Your task to perform on an android device: Go to settings Image 0: 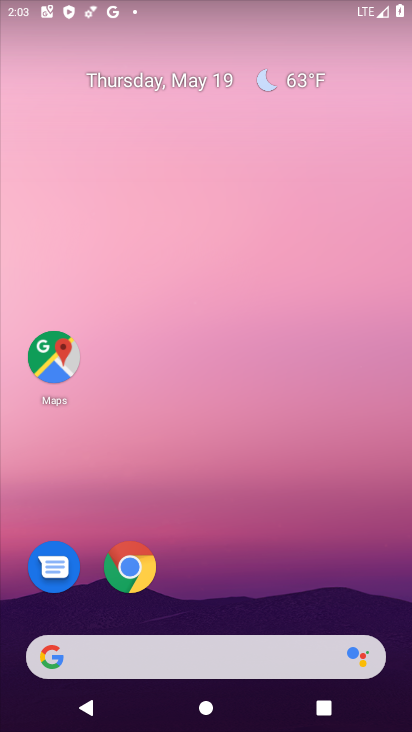
Step 0: drag from (270, 546) to (267, 151)
Your task to perform on an android device: Go to settings Image 1: 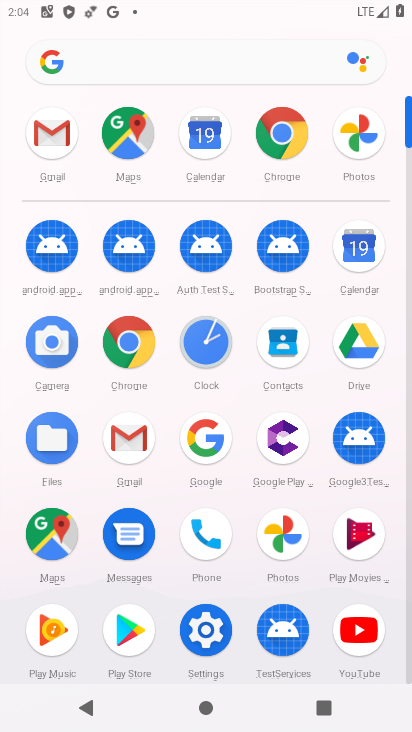
Step 1: click (215, 649)
Your task to perform on an android device: Go to settings Image 2: 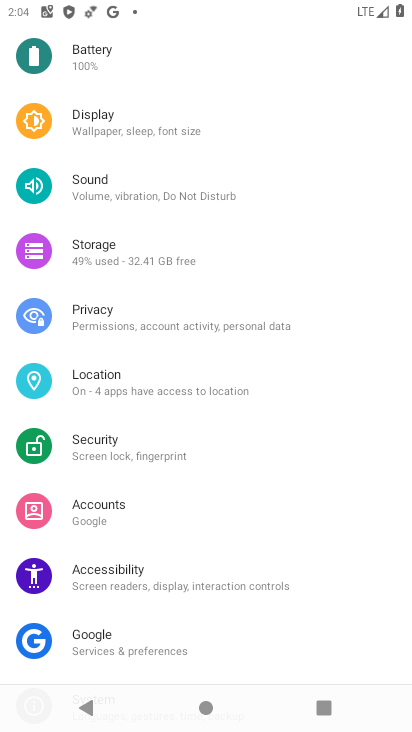
Step 2: task complete